Your task to perform on an android device: Clear the cart on costco. Search for razer naga on costco, select the first entry, and add it to the cart. Image 0: 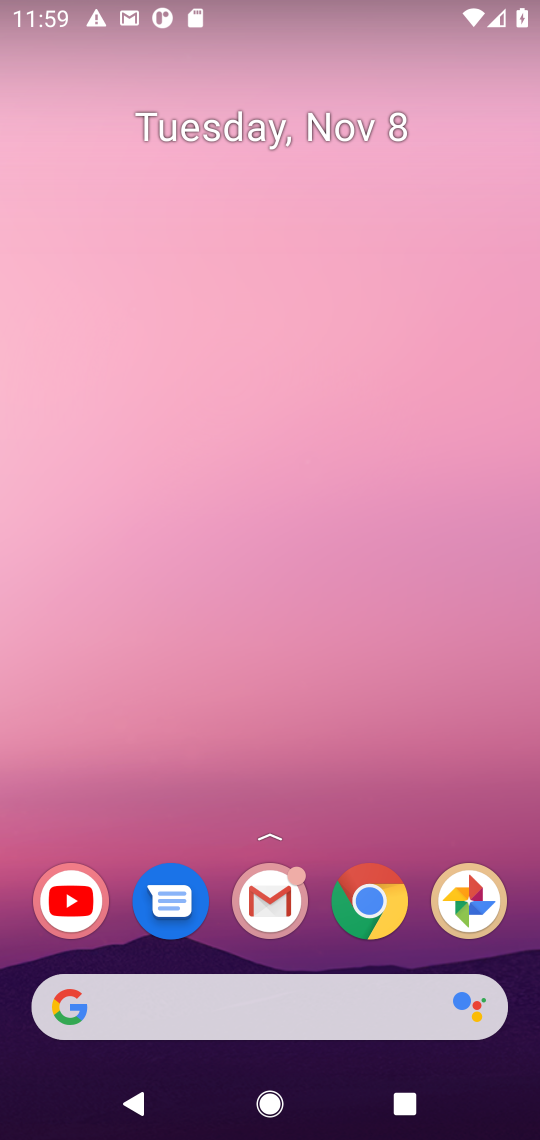
Step 0: click (371, 911)
Your task to perform on an android device: Clear the cart on costco. Search for razer naga on costco, select the first entry, and add it to the cart. Image 1: 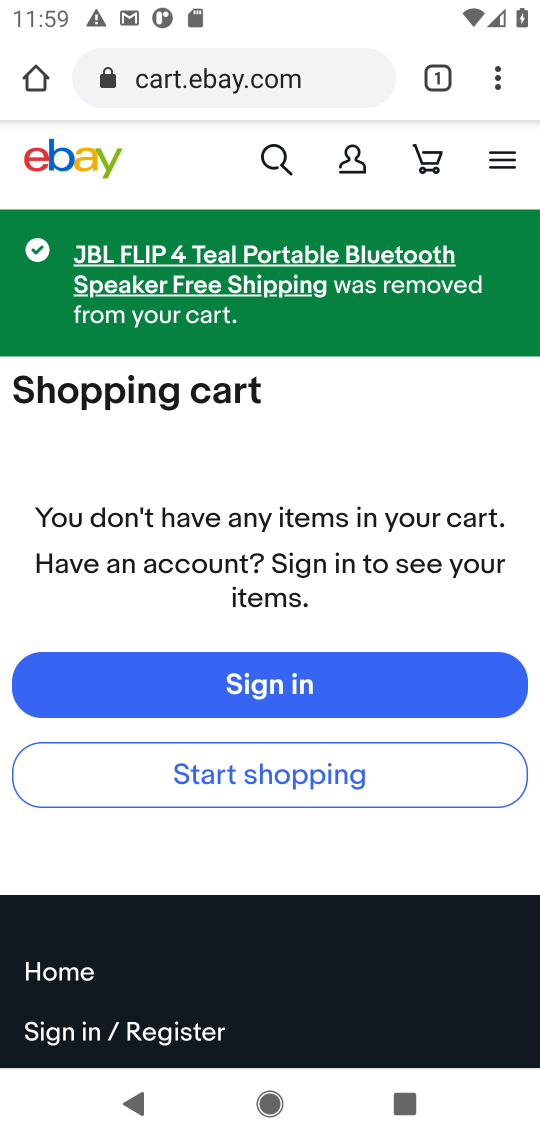
Step 1: click (277, 75)
Your task to perform on an android device: Clear the cart on costco. Search for razer naga on costco, select the first entry, and add it to the cart. Image 2: 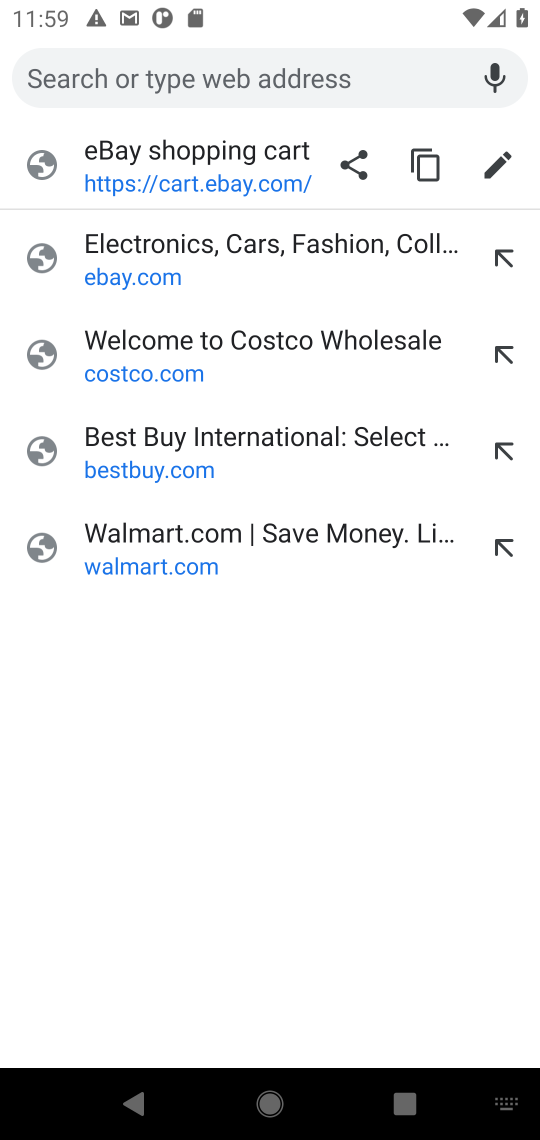
Step 2: click (267, 342)
Your task to perform on an android device: Clear the cart on costco. Search for razer naga on costco, select the first entry, and add it to the cart. Image 3: 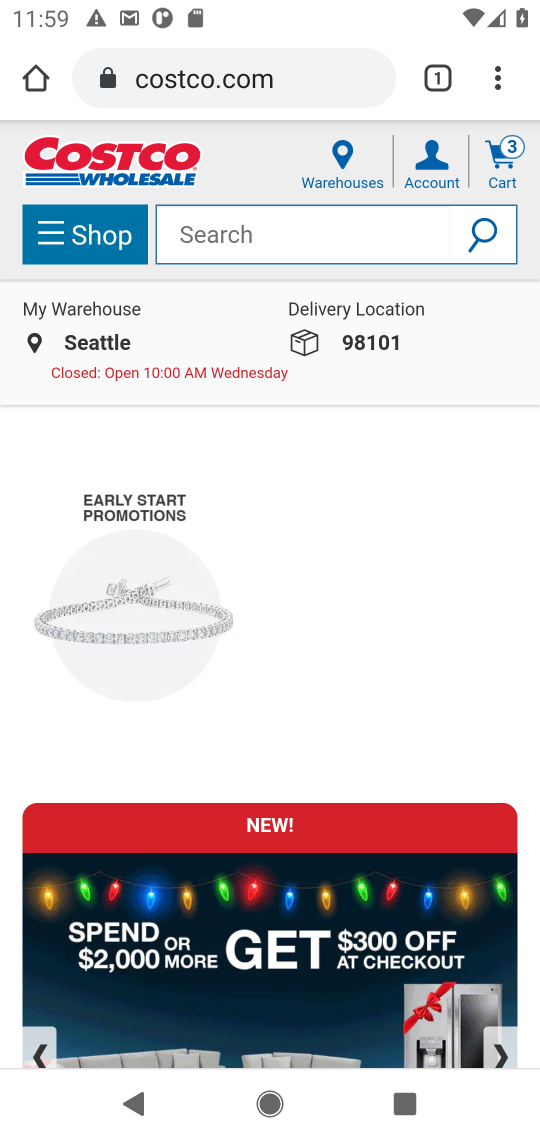
Step 3: click (384, 246)
Your task to perform on an android device: Clear the cart on costco. Search for razer naga on costco, select the first entry, and add it to the cart. Image 4: 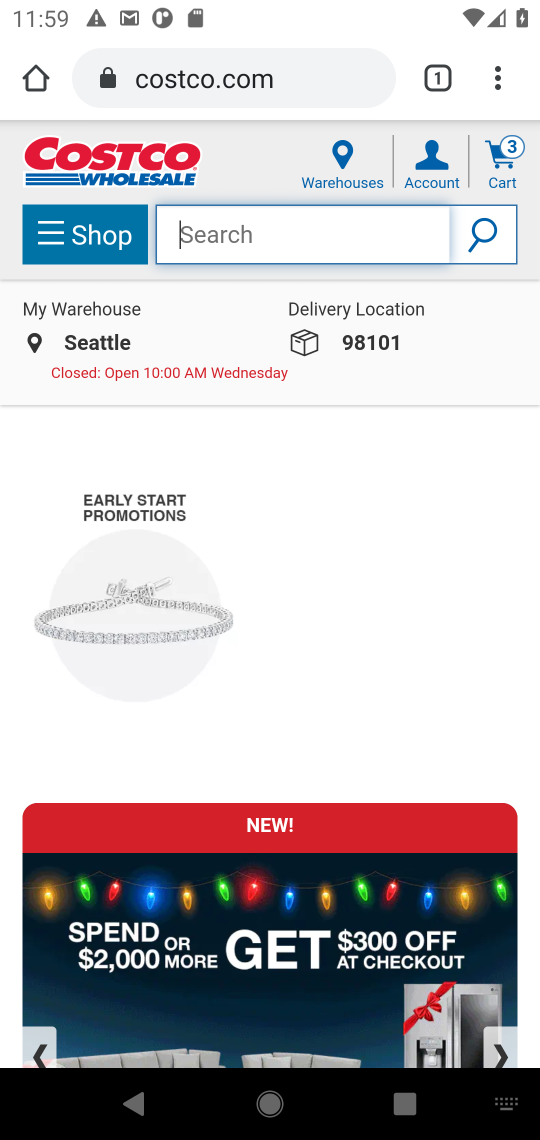
Step 4: type "razer naga"
Your task to perform on an android device: Clear the cart on costco. Search for razer naga on costco, select the first entry, and add it to the cart. Image 5: 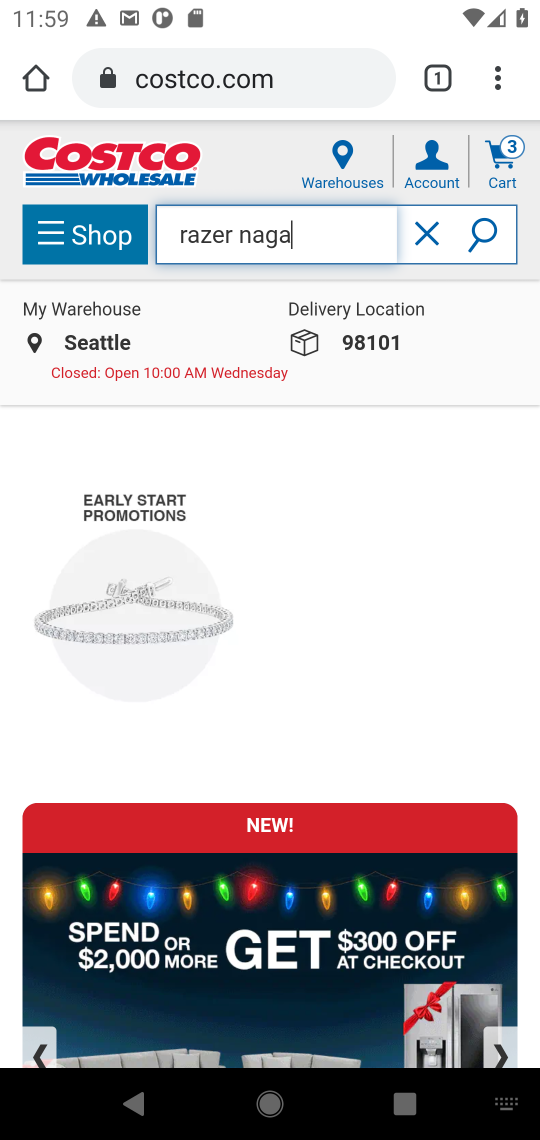
Step 5: press enter
Your task to perform on an android device: Clear the cart on costco. Search for razer naga on costco, select the first entry, and add it to the cart. Image 6: 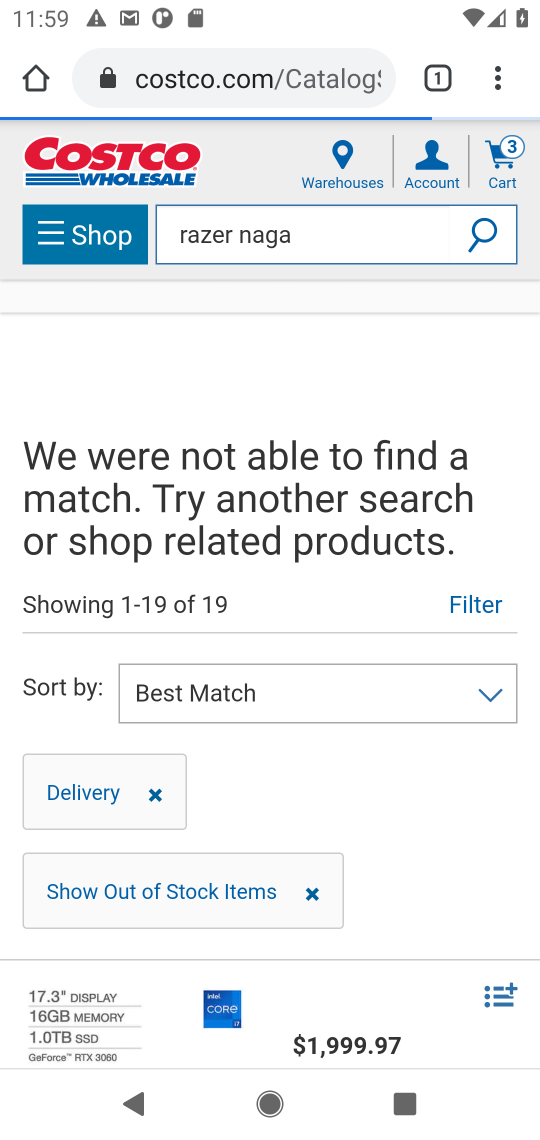
Step 6: drag from (407, 875) to (481, 493)
Your task to perform on an android device: Clear the cart on costco. Search for razer naga on costco, select the first entry, and add it to the cart. Image 7: 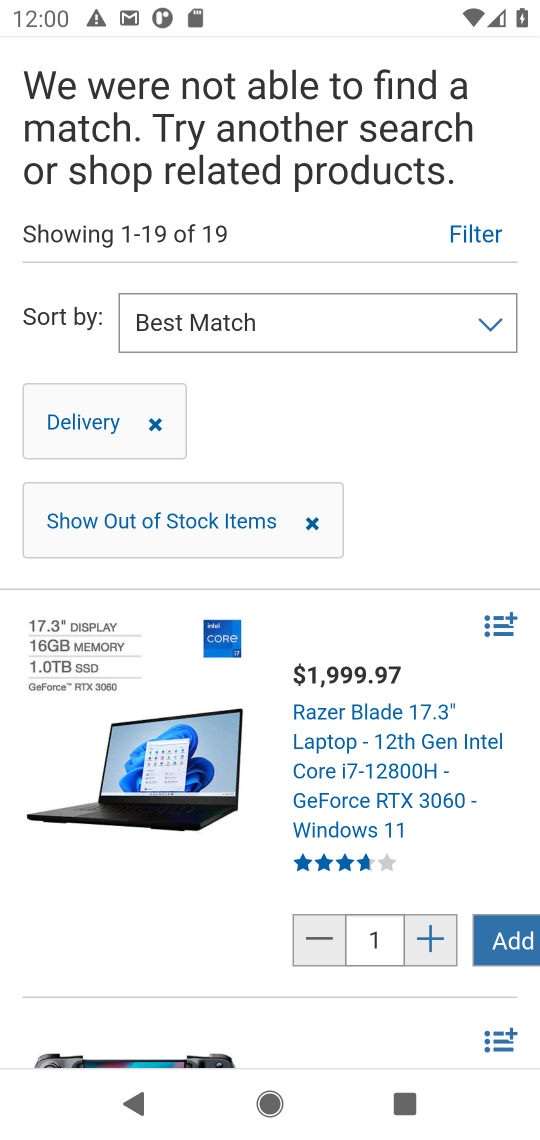
Step 7: click (143, 778)
Your task to perform on an android device: Clear the cart on costco. Search for razer naga on costco, select the first entry, and add it to the cart. Image 8: 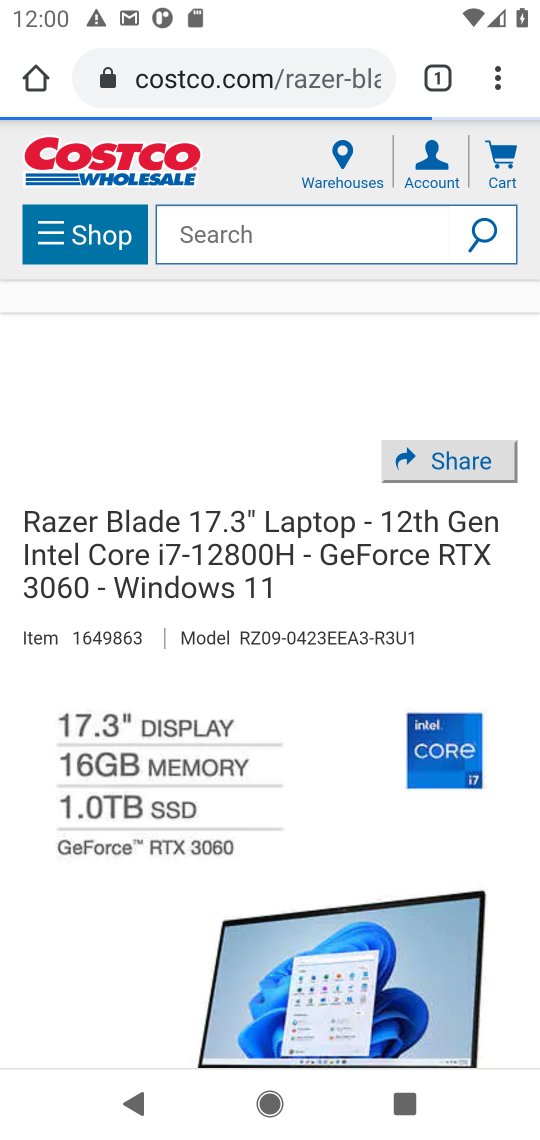
Step 8: task complete